Your task to perform on an android device: turn on sleep mode Image 0: 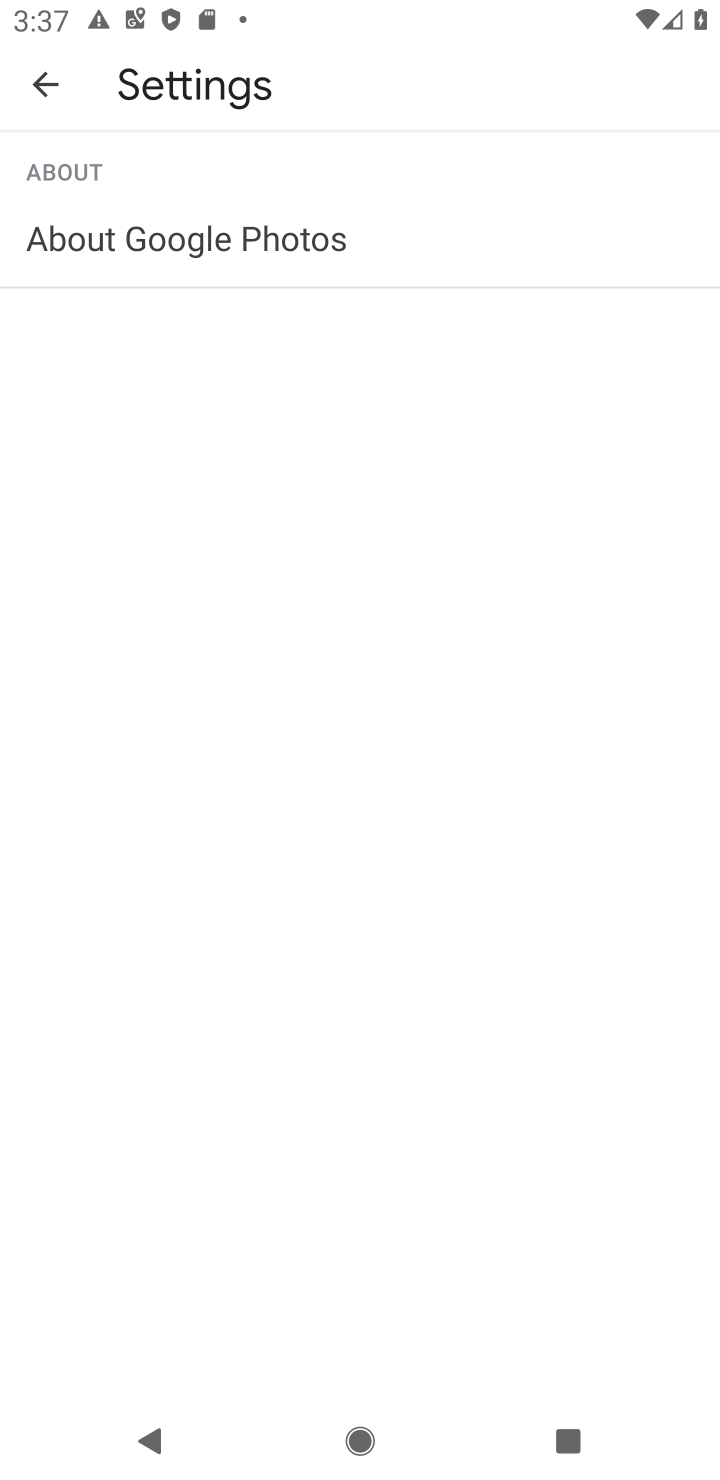
Step 0: press home button
Your task to perform on an android device: turn on sleep mode Image 1: 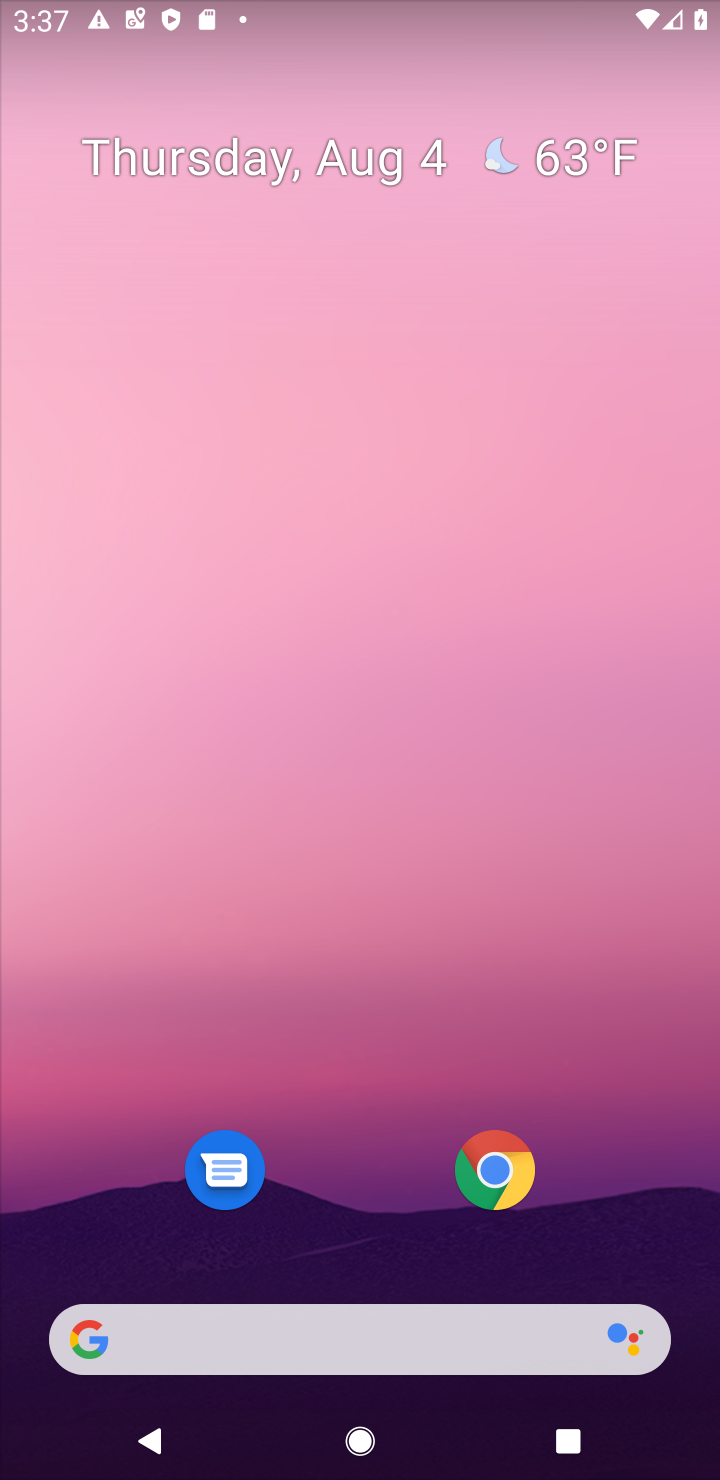
Step 1: drag from (640, 1223) to (508, 515)
Your task to perform on an android device: turn on sleep mode Image 2: 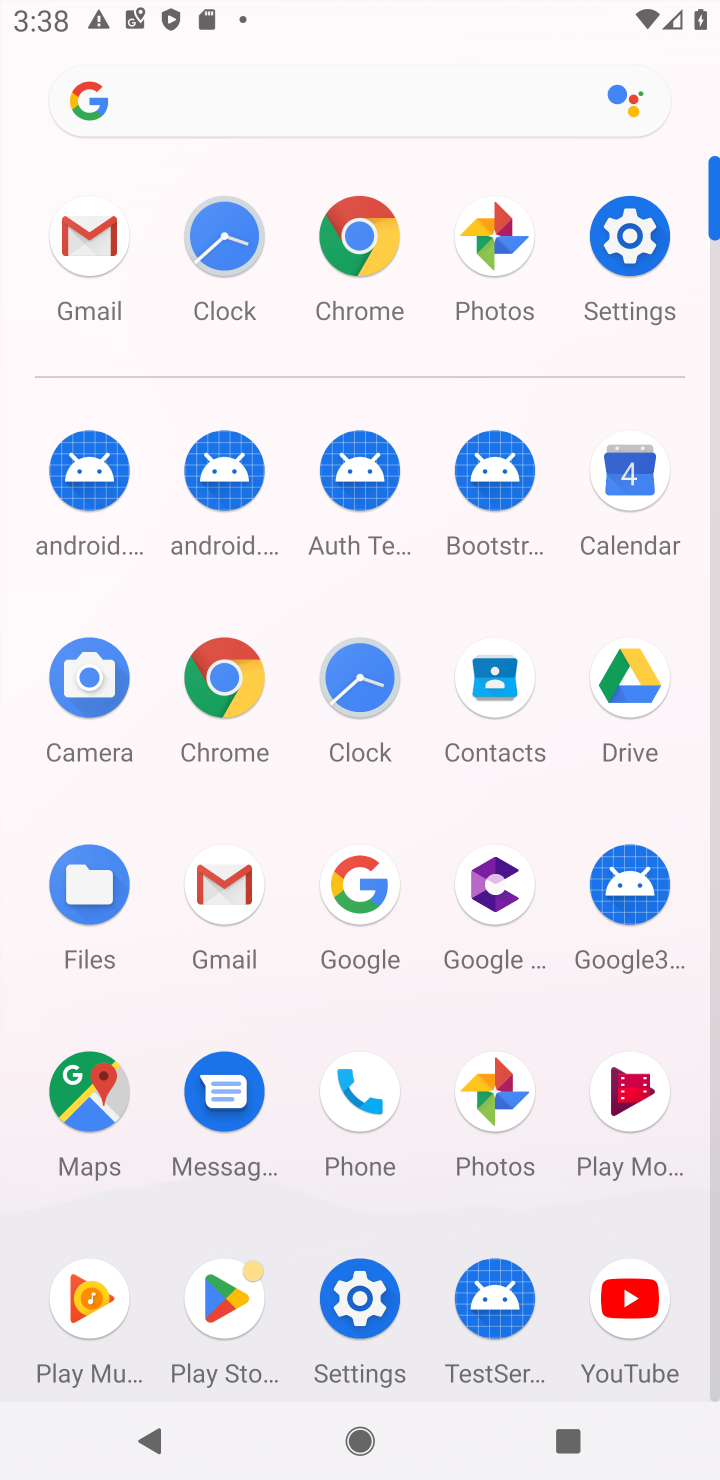
Step 2: click (359, 1302)
Your task to perform on an android device: turn on sleep mode Image 3: 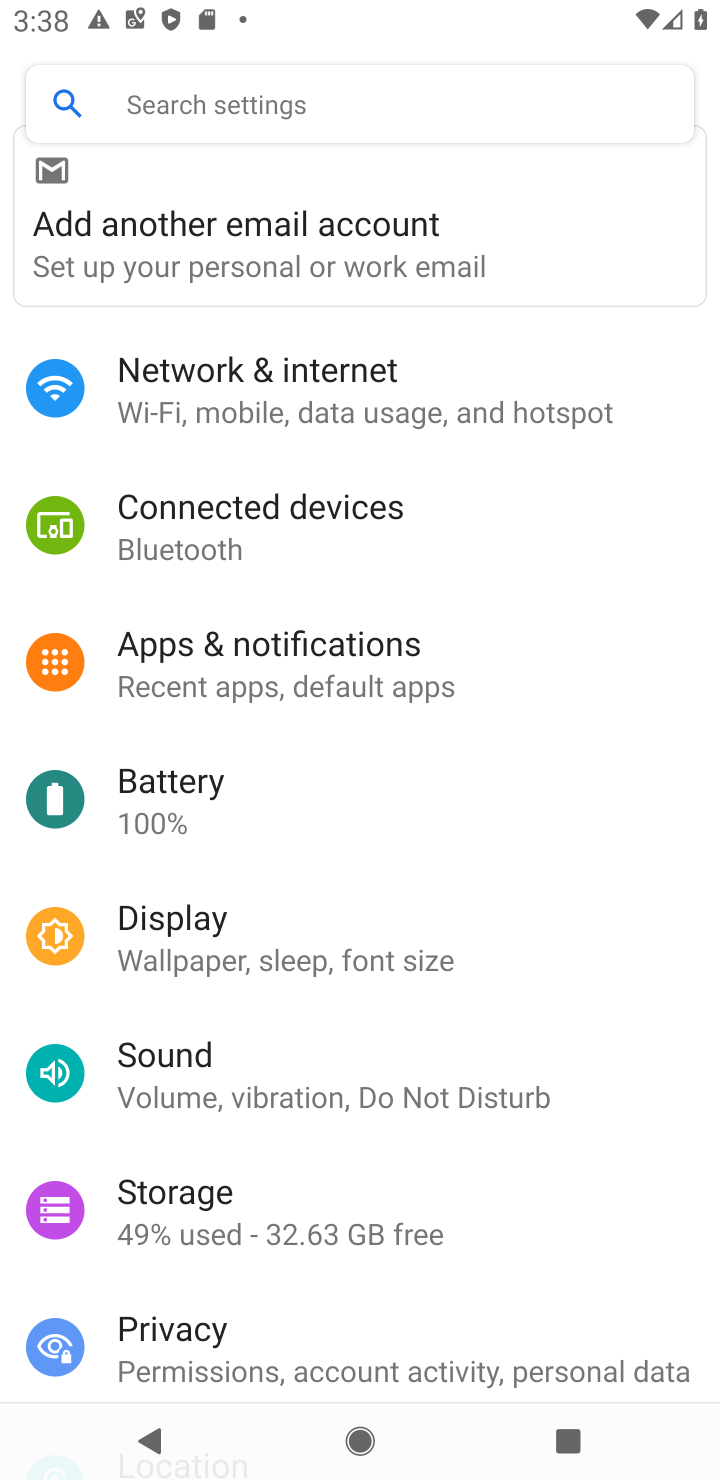
Step 3: click (178, 928)
Your task to perform on an android device: turn on sleep mode Image 4: 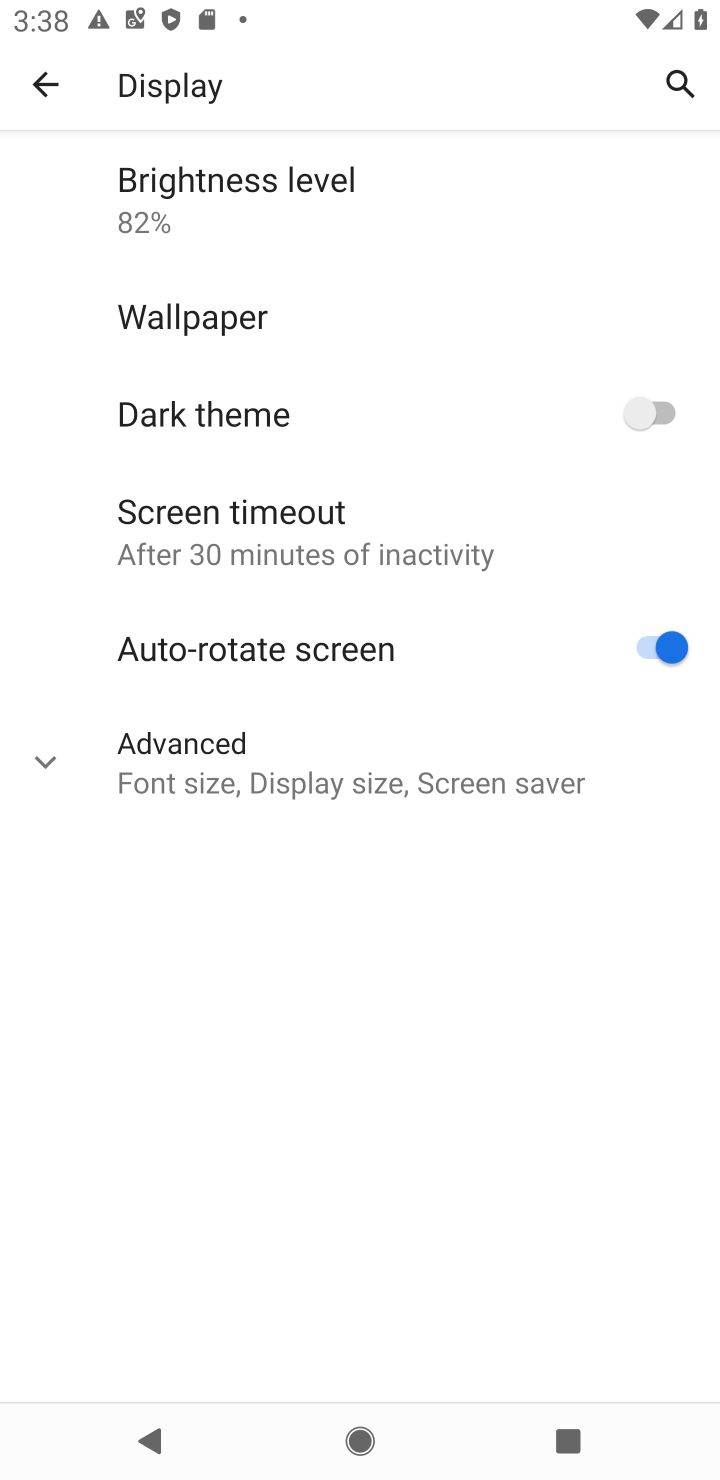
Step 4: click (57, 763)
Your task to perform on an android device: turn on sleep mode Image 5: 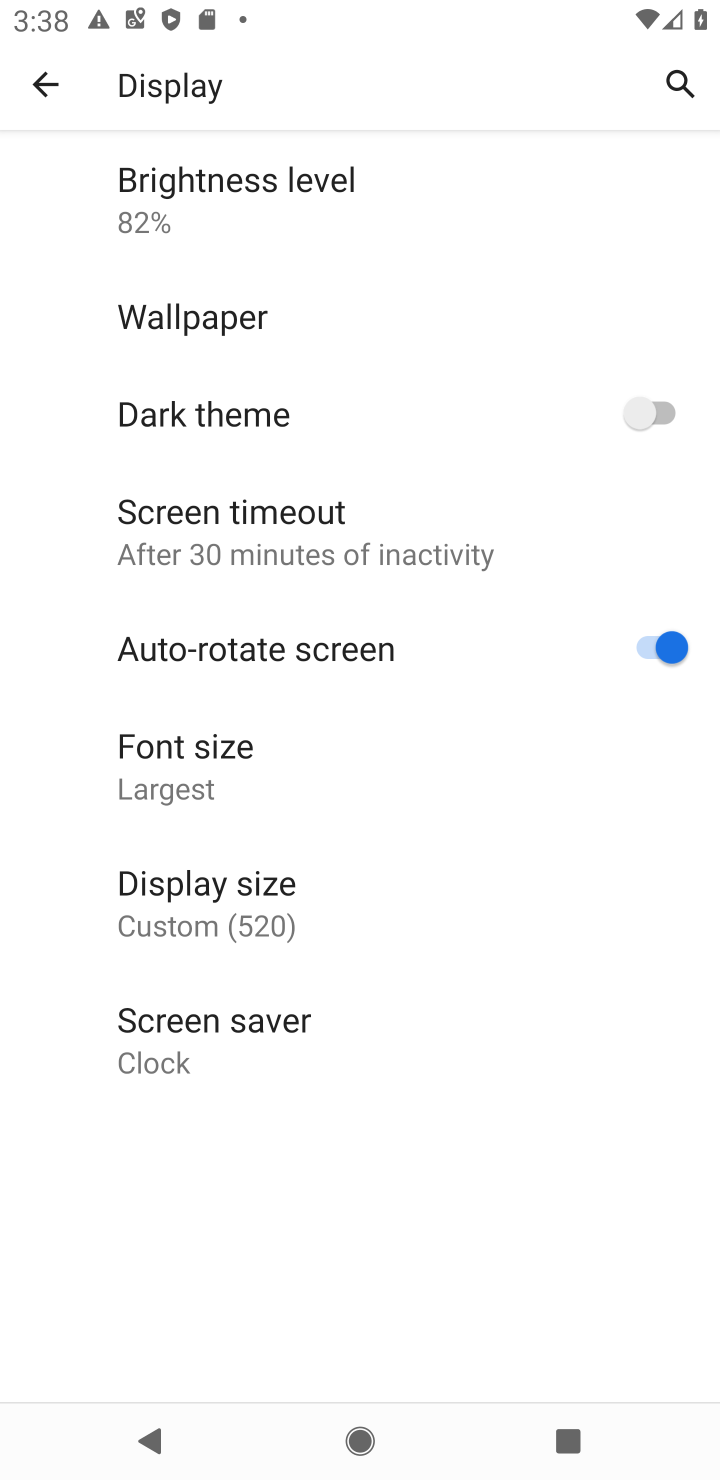
Step 5: task complete